Your task to perform on an android device: Open the map Image 0: 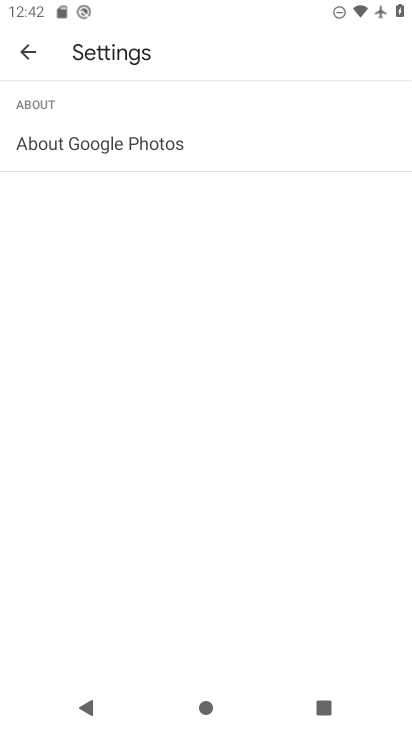
Step 0: press home button
Your task to perform on an android device: Open the map Image 1: 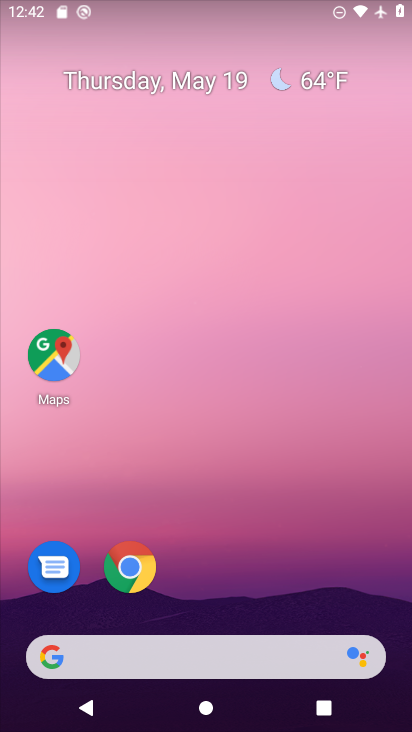
Step 1: click (59, 360)
Your task to perform on an android device: Open the map Image 2: 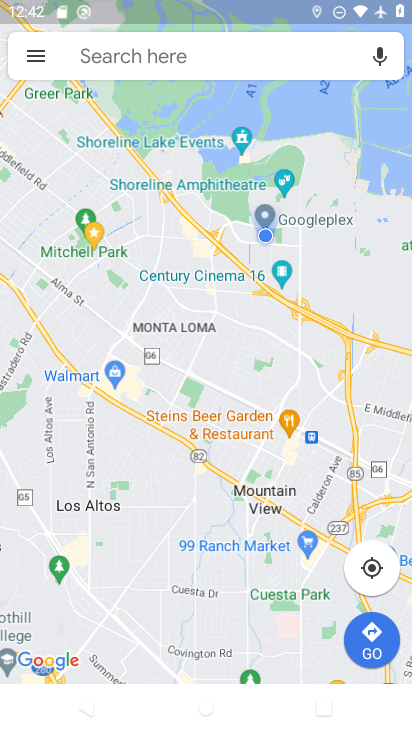
Step 2: task complete